Your task to perform on an android device: Open location settings Image 0: 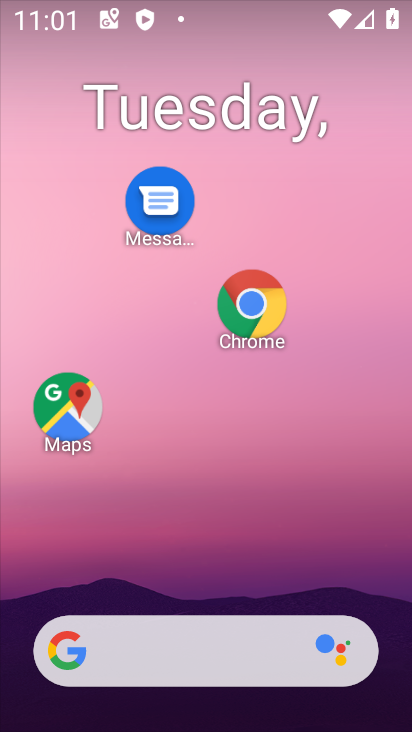
Step 0: drag from (401, 393) to (394, 179)
Your task to perform on an android device: Open location settings Image 1: 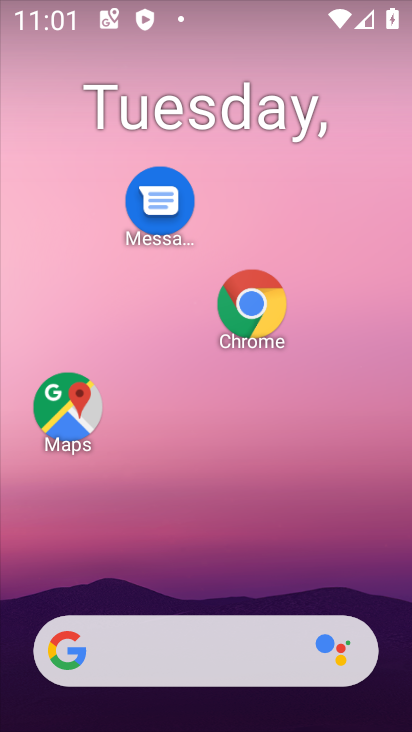
Step 1: click (296, 269)
Your task to perform on an android device: Open location settings Image 2: 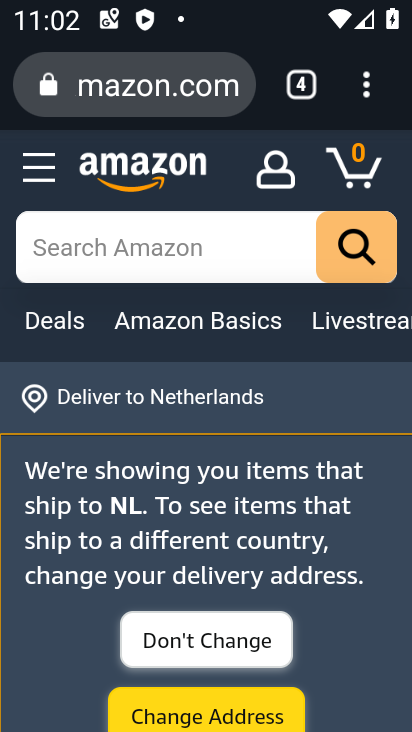
Step 2: click (369, 87)
Your task to perform on an android device: Open location settings Image 3: 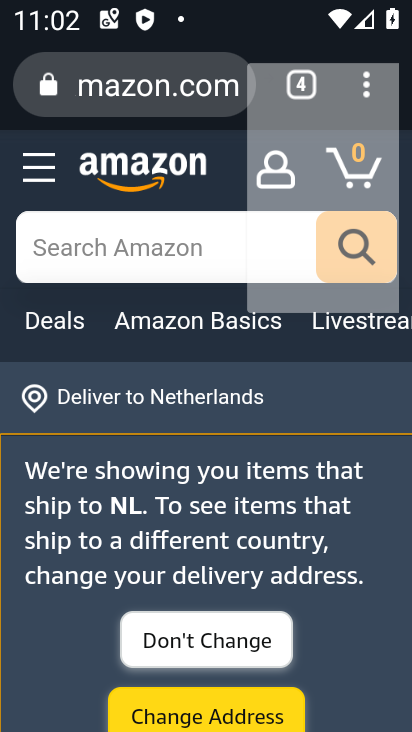
Step 3: press home button
Your task to perform on an android device: Open location settings Image 4: 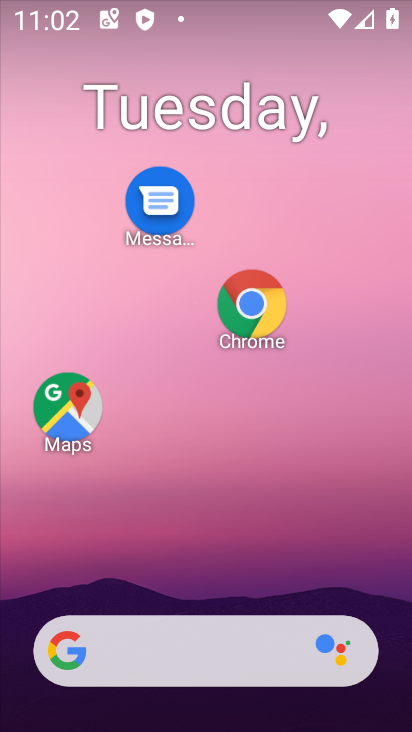
Step 4: drag from (277, 576) to (338, 142)
Your task to perform on an android device: Open location settings Image 5: 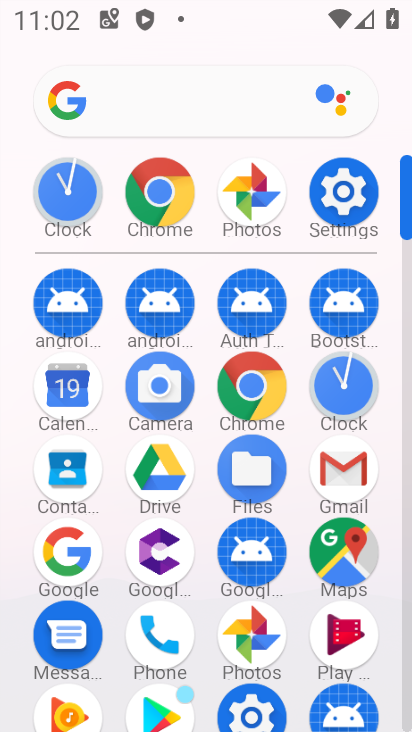
Step 5: click (340, 190)
Your task to perform on an android device: Open location settings Image 6: 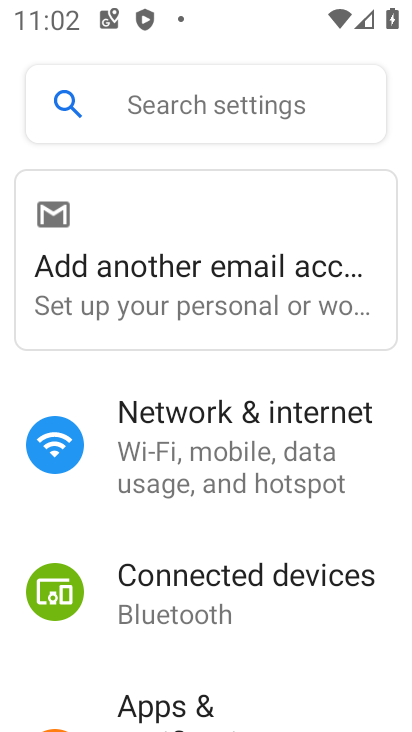
Step 6: drag from (171, 637) to (286, 254)
Your task to perform on an android device: Open location settings Image 7: 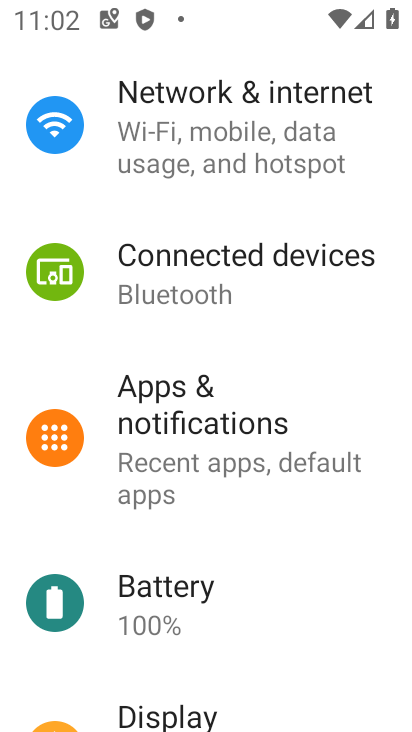
Step 7: drag from (195, 576) to (262, 187)
Your task to perform on an android device: Open location settings Image 8: 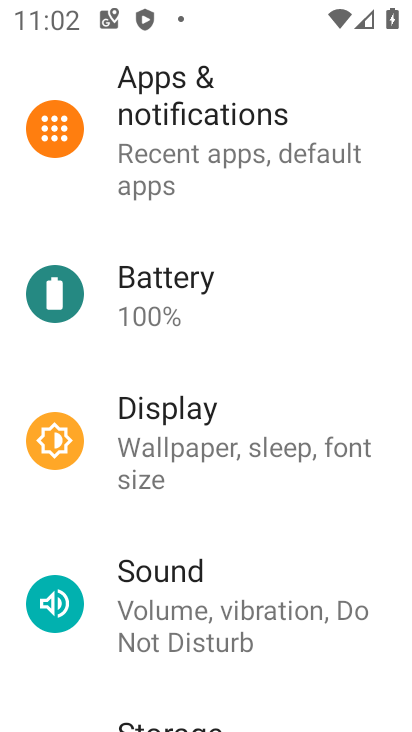
Step 8: drag from (204, 596) to (277, 235)
Your task to perform on an android device: Open location settings Image 9: 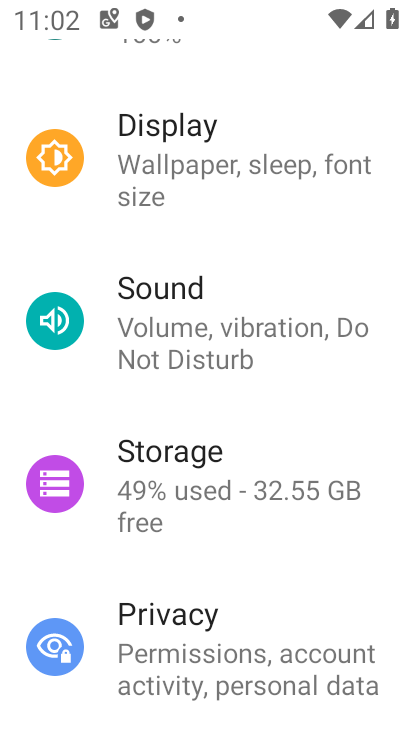
Step 9: drag from (187, 576) to (263, 162)
Your task to perform on an android device: Open location settings Image 10: 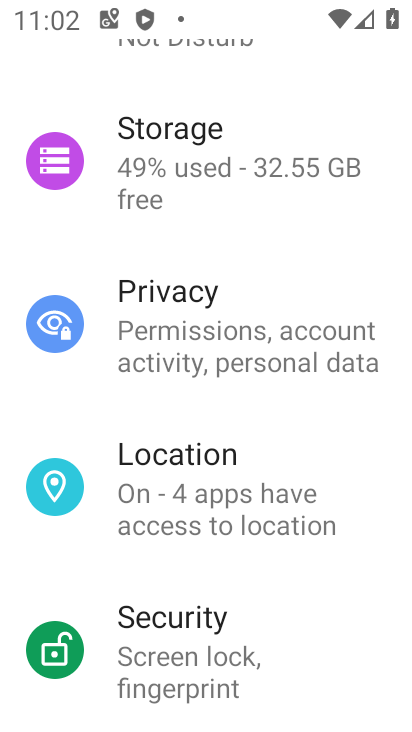
Step 10: click (179, 465)
Your task to perform on an android device: Open location settings Image 11: 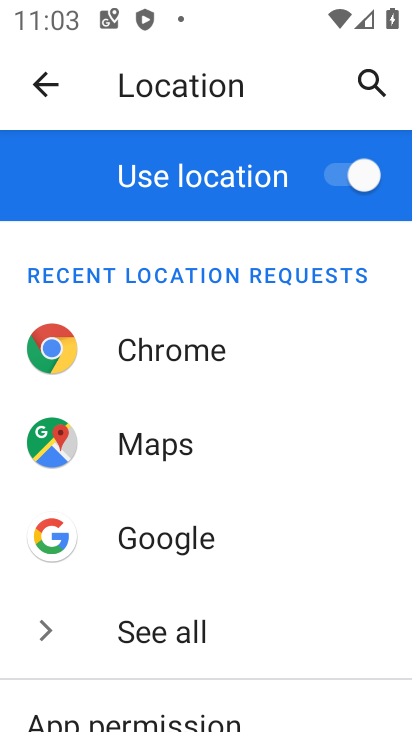
Step 11: task complete